Your task to perform on an android device: When is my next appointment? Image 0: 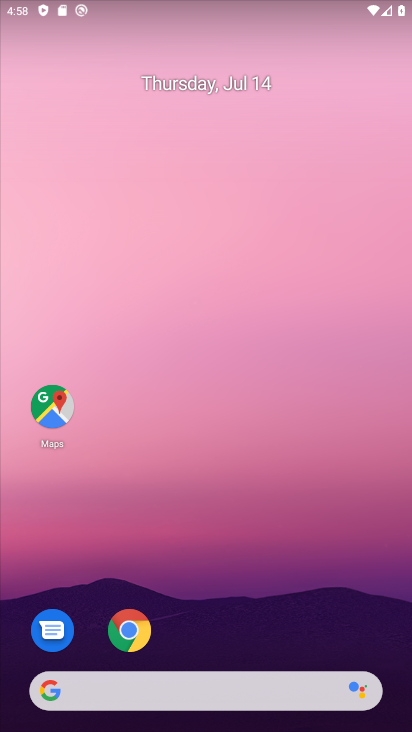
Step 0: drag from (268, 612) to (259, 95)
Your task to perform on an android device: When is my next appointment? Image 1: 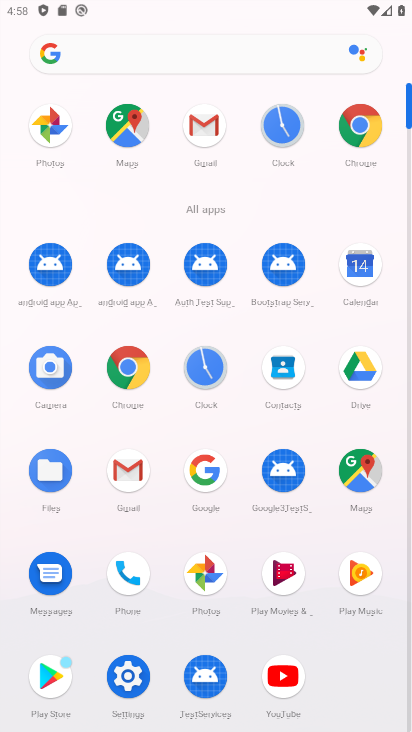
Step 1: click (367, 271)
Your task to perform on an android device: When is my next appointment? Image 2: 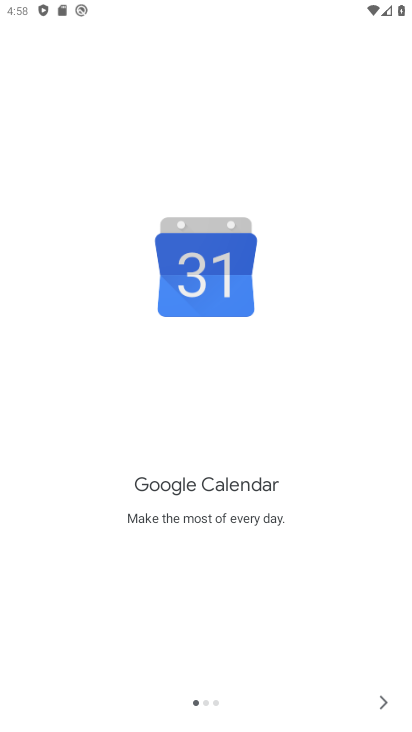
Step 2: click (377, 704)
Your task to perform on an android device: When is my next appointment? Image 3: 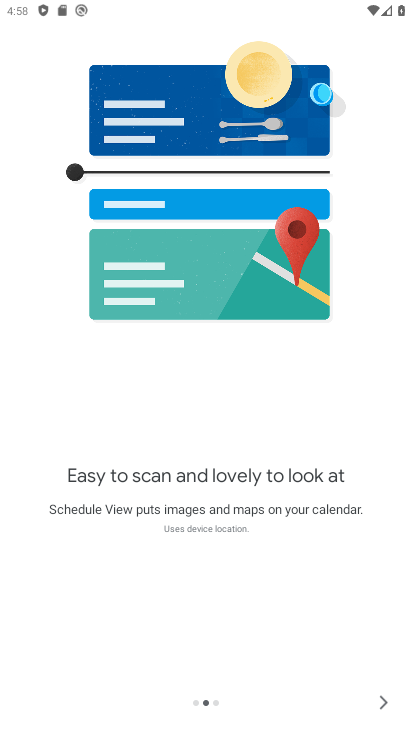
Step 3: click (388, 699)
Your task to perform on an android device: When is my next appointment? Image 4: 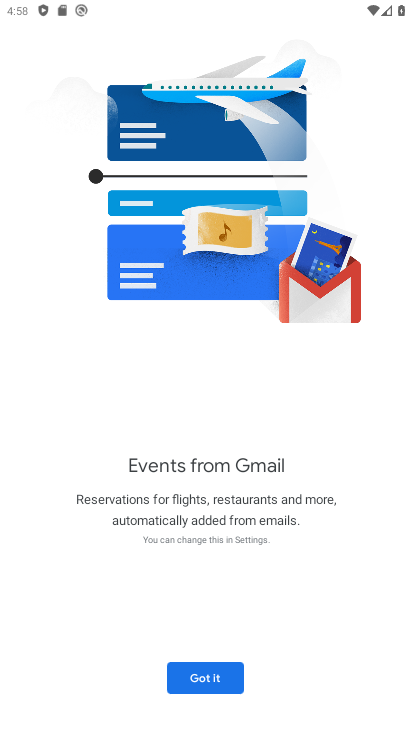
Step 4: click (196, 666)
Your task to perform on an android device: When is my next appointment? Image 5: 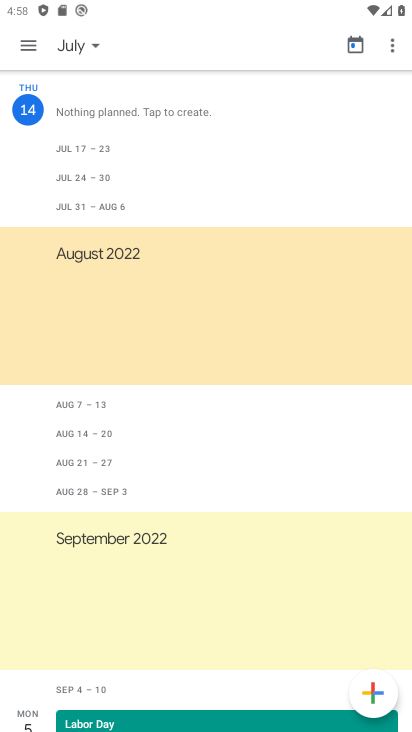
Step 5: click (36, 43)
Your task to perform on an android device: When is my next appointment? Image 6: 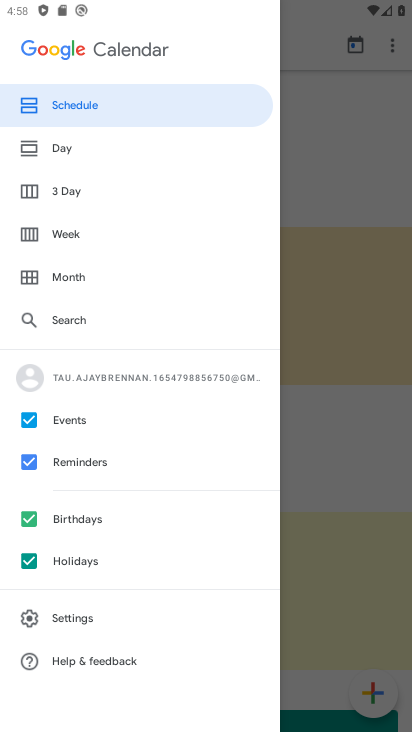
Step 6: click (129, 113)
Your task to perform on an android device: When is my next appointment? Image 7: 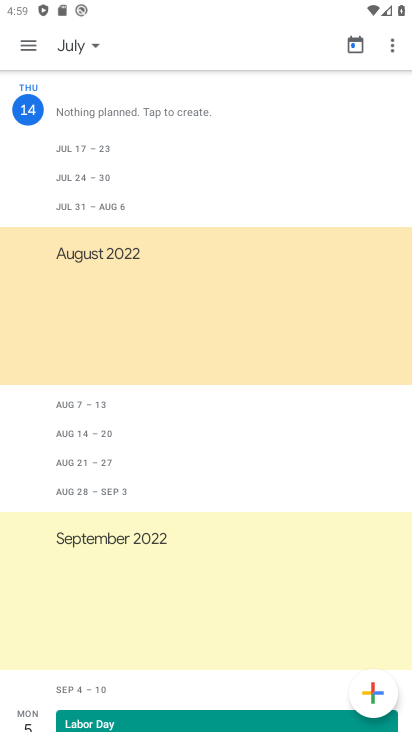
Step 7: task complete